Your task to perform on an android device: change the clock display to digital Image 0: 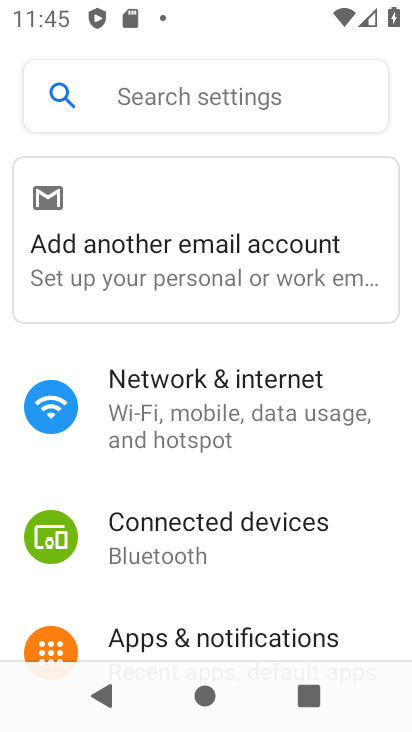
Step 0: press home button
Your task to perform on an android device: change the clock display to digital Image 1: 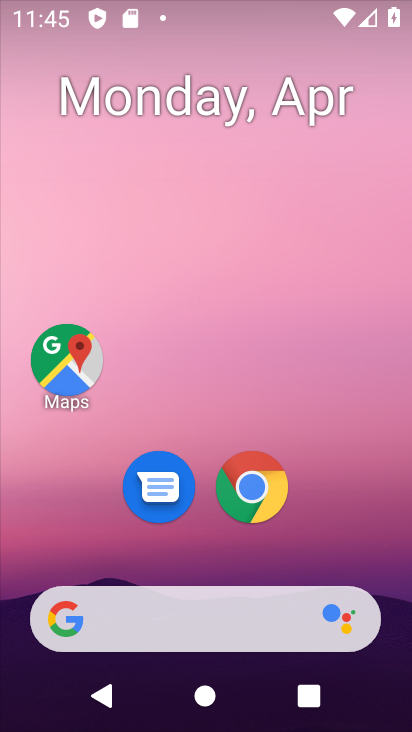
Step 1: drag from (387, 490) to (289, 138)
Your task to perform on an android device: change the clock display to digital Image 2: 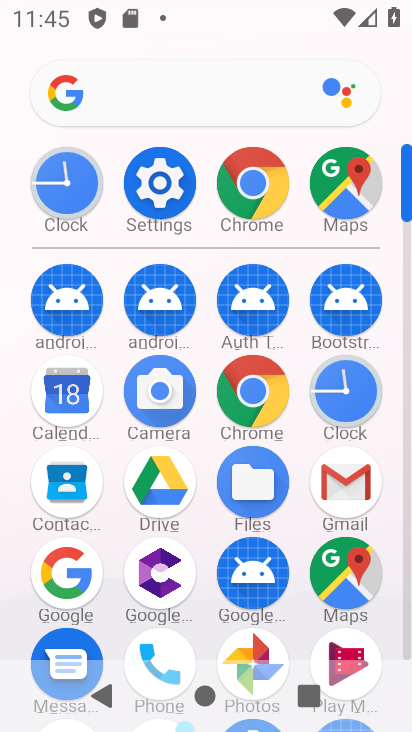
Step 2: click (330, 386)
Your task to perform on an android device: change the clock display to digital Image 3: 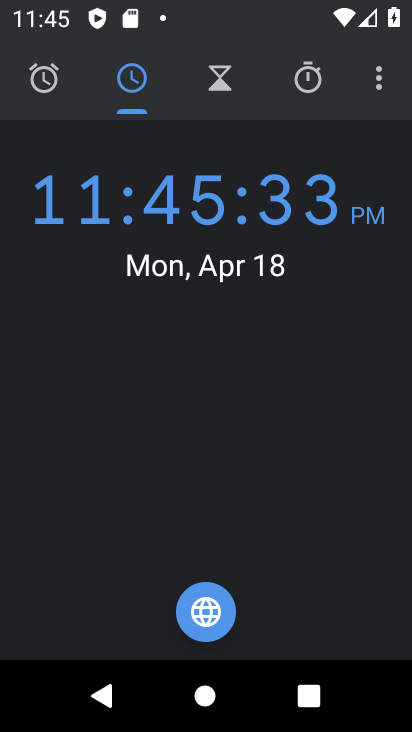
Step 3: click (391, 87)
Your task to perform on an android device: change the clock display to digital Image 4: 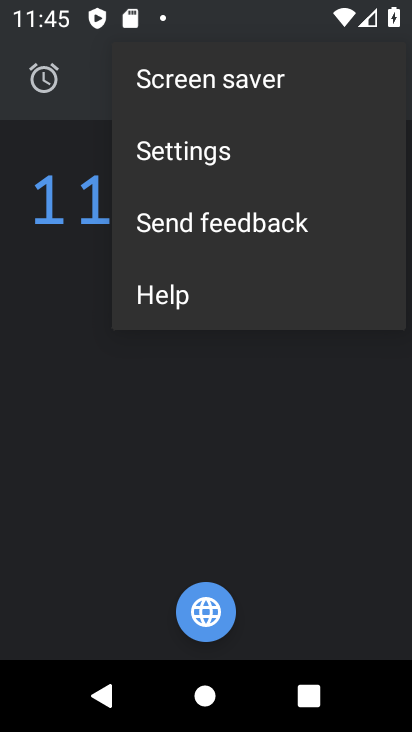
Step 4: click (350, 157)
Your task to perform on an android device: change the clock display to digital Image 5: 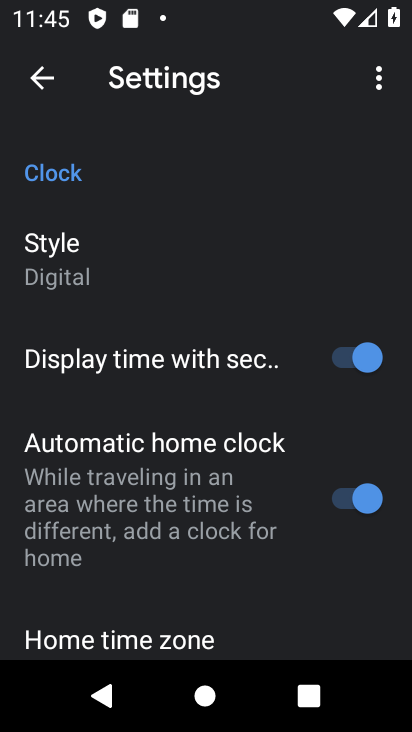
Step 5: click (337, 254)
Your task to perform on an android device: change the clock display to digital Image 6: 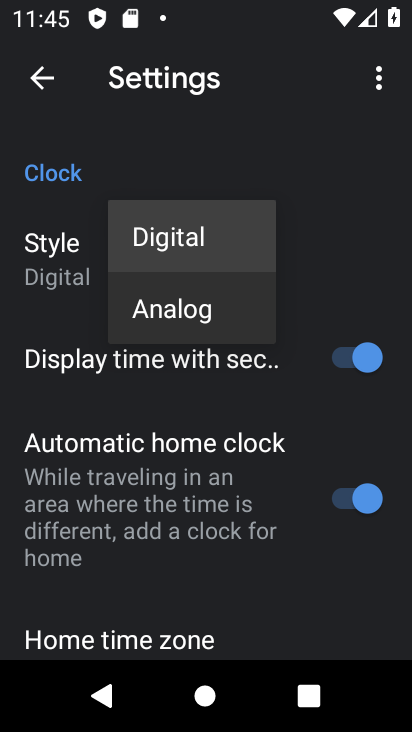
Step 6: task complete